Your task to perform on an android device: Is it going to rain tomorrow? Image 0: 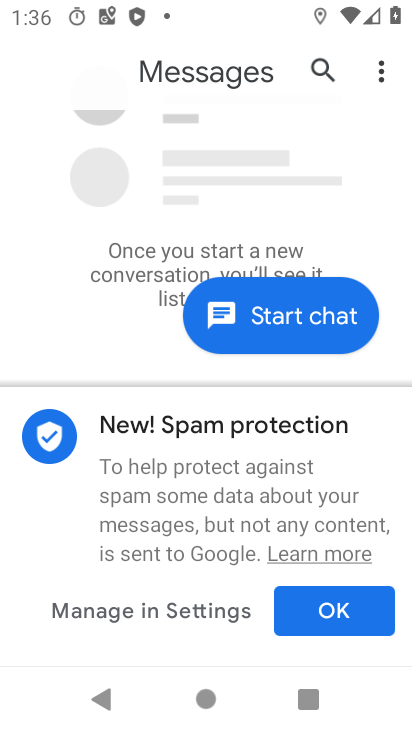
Step 0: press home button
Your task to perform on an android device: Is it going to rain tomorrow? Image 1: 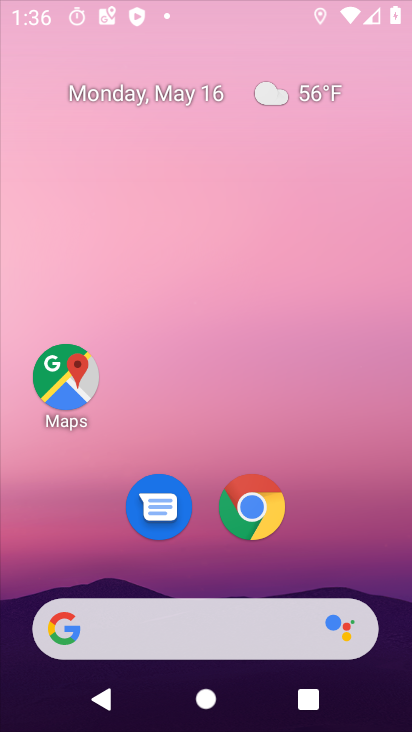
Step 1: drag from (214, 547) to (231, 104)
Your task to perform on an android device: Is it going to rain tomorrow? Image 2: 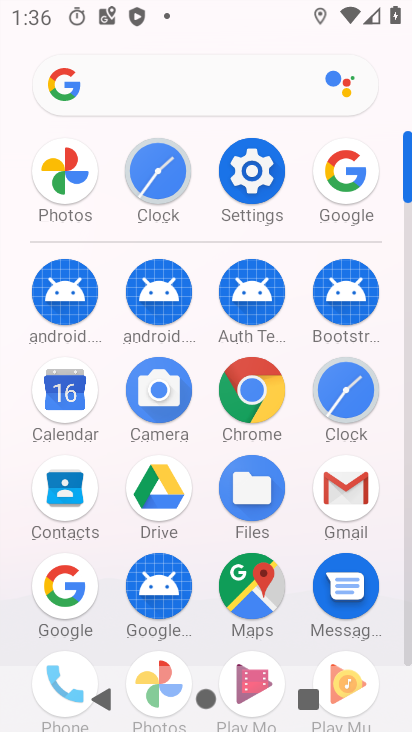
Step 2: click (69, 579)
Your task to perform on an android device: Is it going to rain tomorrow? Image 3: 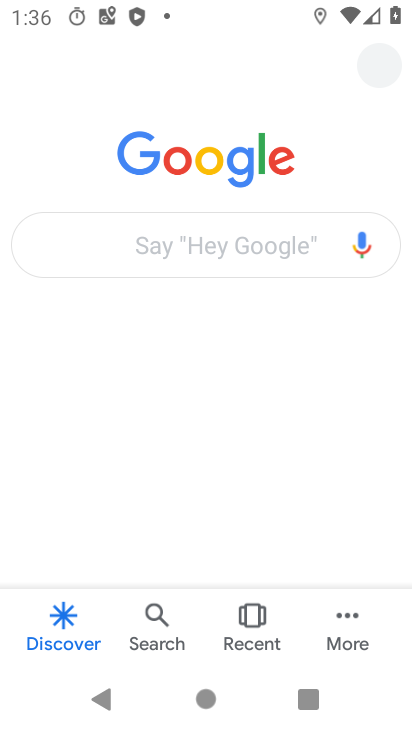
Step 3: click (168, 247)
Your task to perform on an android device: Is it going to rain tomorrow? Image 4: 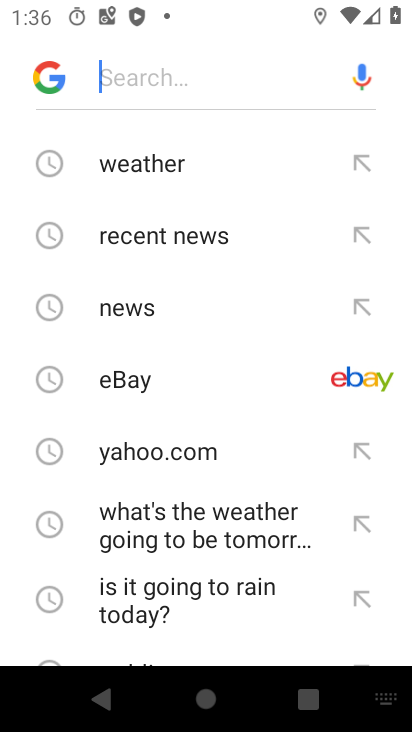
Step 4: drag from (272, 574) to (231, 310)
Your task to perform on an android device: Is it going to rain tomorrow? Image 5: 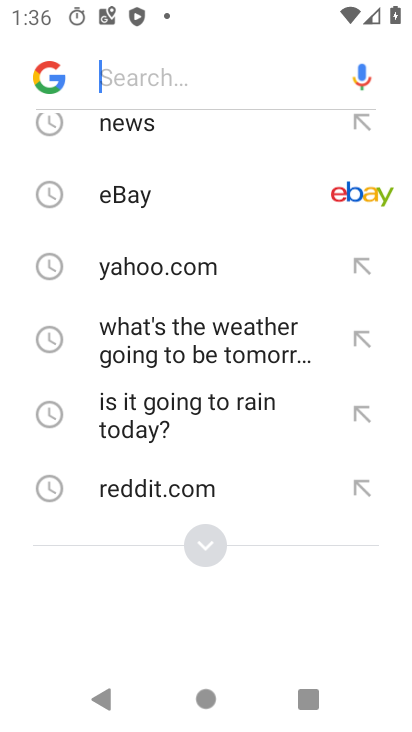
Step 5: type "is it going to rain tomorrow"
Your task to perform on an android device: Is it going to rain tomorrow? Image 6: 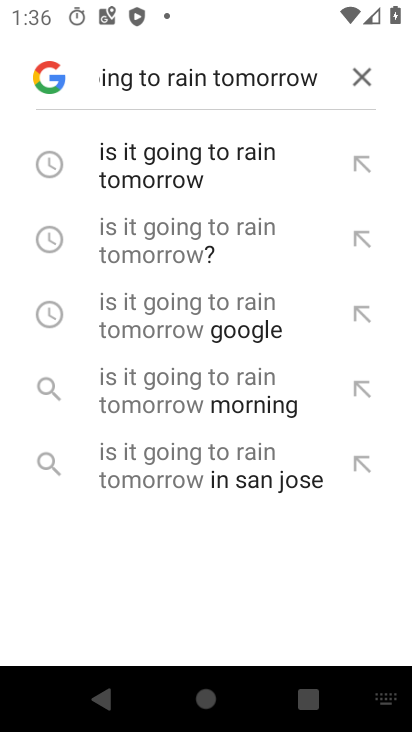
Step 6: click (169, 165)
Your task to perform on an android device: Is it going to rain tomorrow? Image 7: 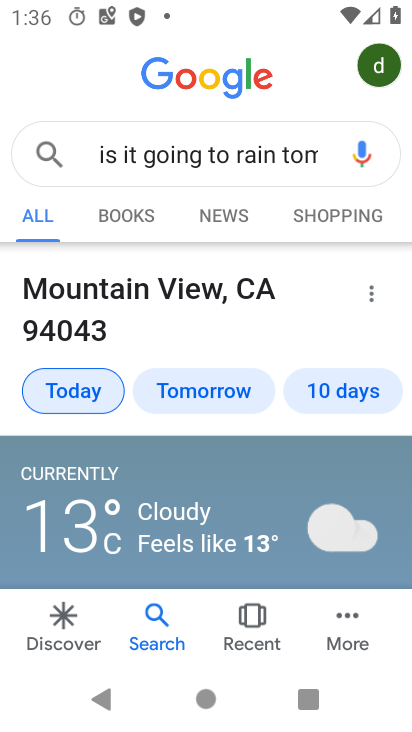
Step 7: click (179, 383)
Your task to perform on an android device: Is it going to rain tomorrow? Image 8: 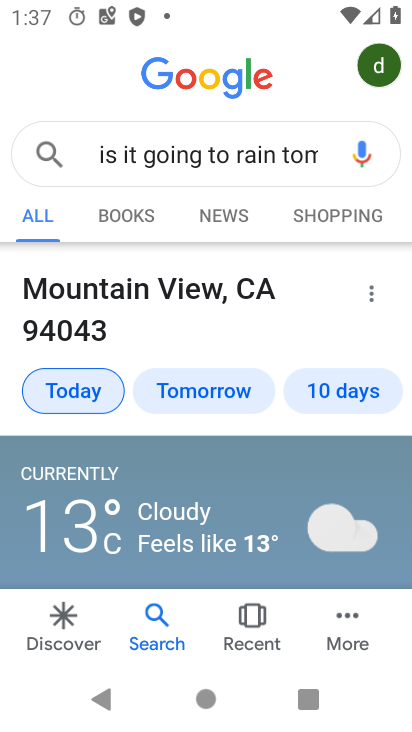
Step 8: click (210, 393)
Your task to perform on an android device: Is it going to rain tomorrow? Image 9: 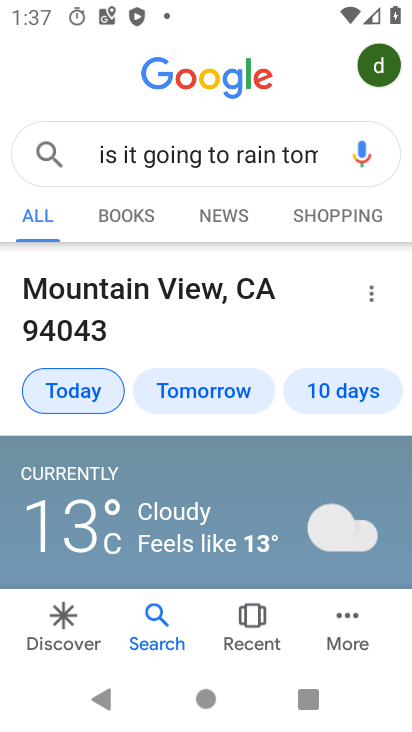
Step 9: task complete